Your task to perform on an android device: Go to Amazon Image 0: 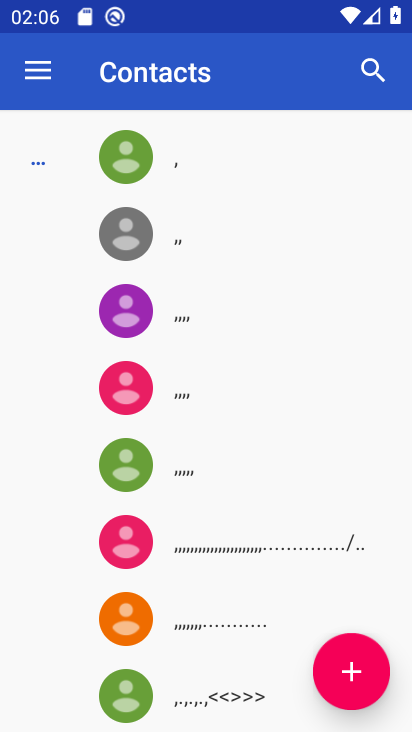
Step 0: press home button
Your task to perform on an android device: Go to Amazon Image 1: 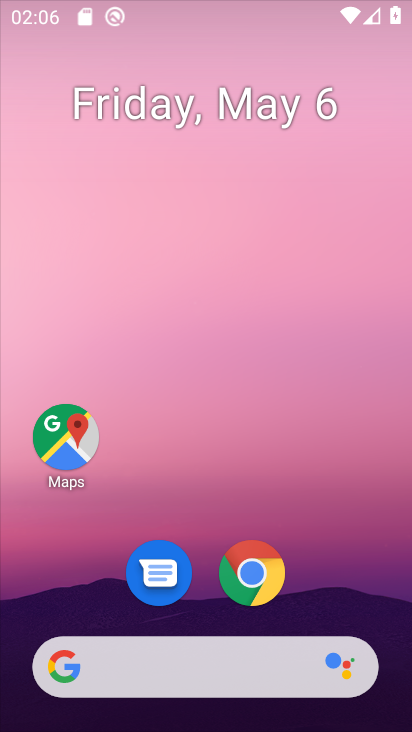
Step 1: drag from (315, 593) to (349, 257)
Your task to perform on an android device: Go to Amazon Image 2: 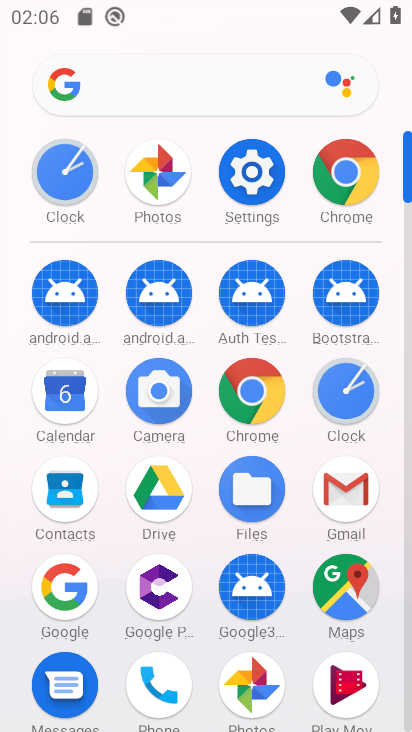
Step 2: click (256, 385)
Your task to perform on an android device: Go to Amazon Image 3: 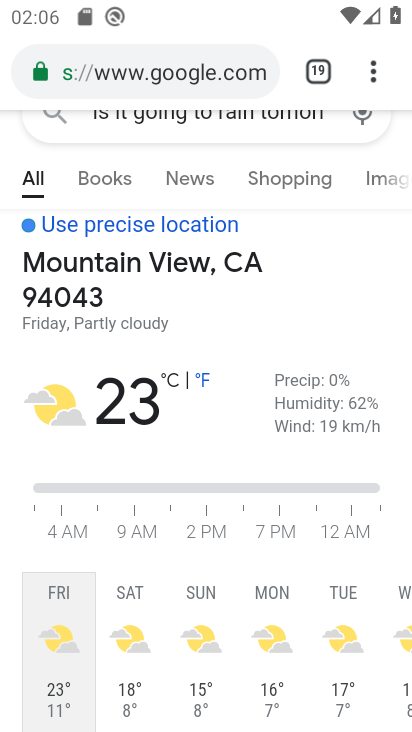
Step 3: click (346, 63)
Your task to perform on an android device: Go to Amazon Image 4: 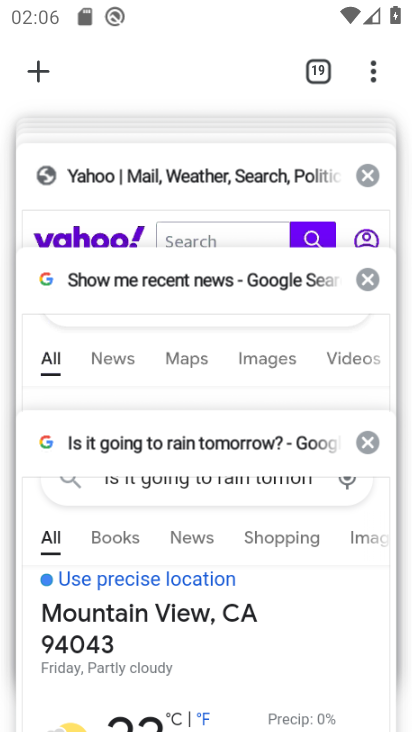
Step 4: click (360, 65)
Your task to perform on an android device: Go to Amazon Image 5: 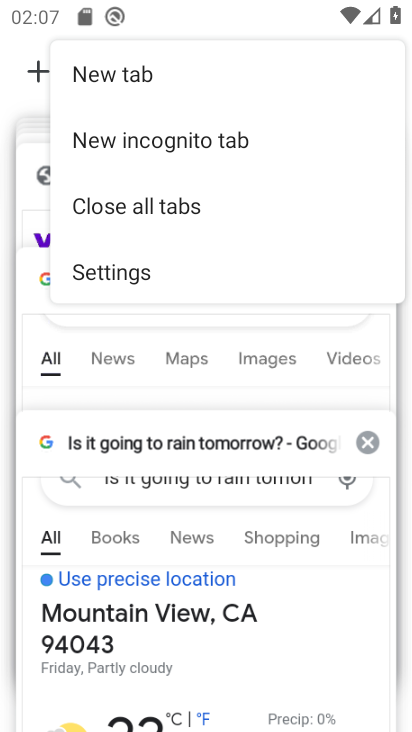
Step 5: click (142, 76)
Your task to perform on an android device: Go to Amazon Image 6: 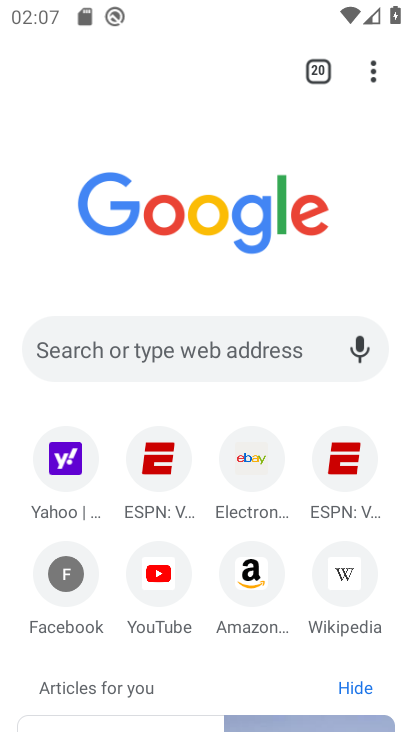
Step 6: click (262, 567)
Your task to perform on an android device: Go to Amazon Image 7: 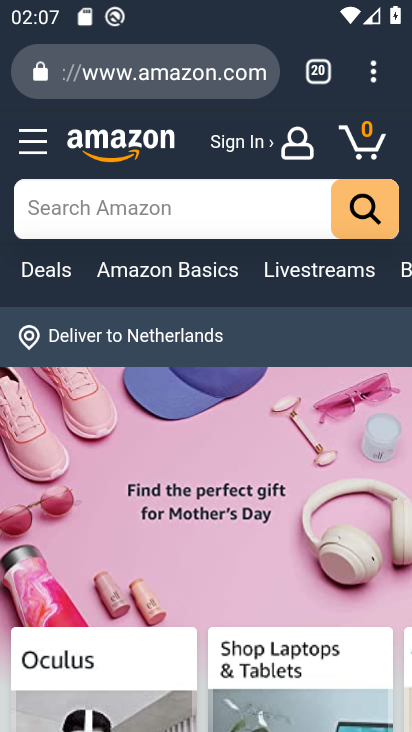
Step 7: task complete